Your task to perform on an android device: Check the weather Image 0: 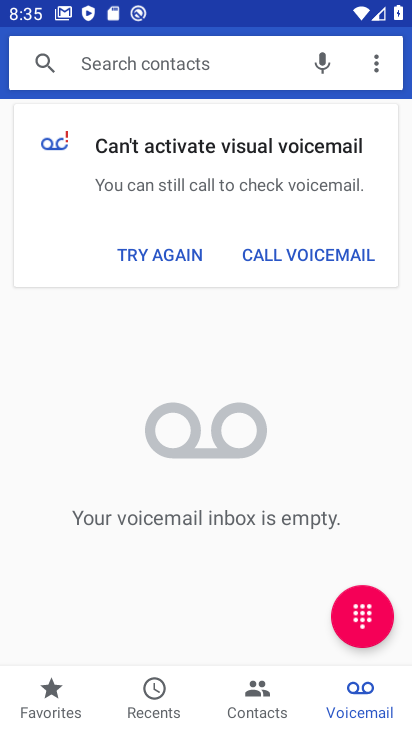
Step 0: drag from (159, 8) to (185, 575)
Your task to perform on an android device: Check the weather Image 1: 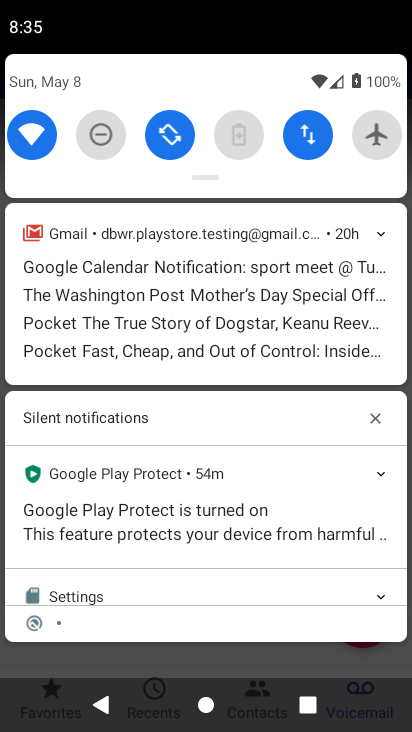
Step 1: press home button
Your task to perform on an android device: Check the weather Image 2: 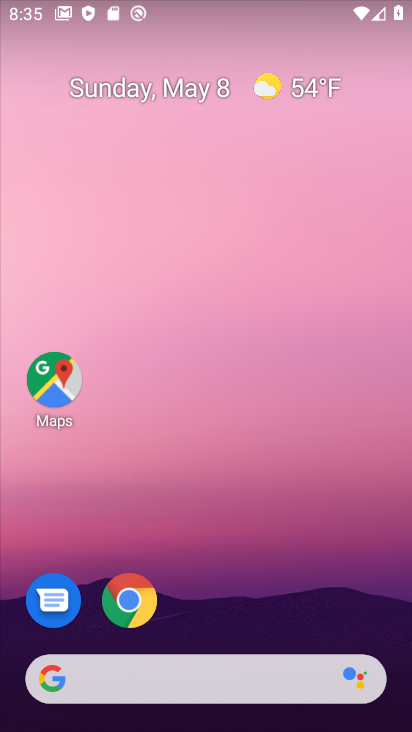
Step 2: click (315, 100)
Your task to perform on an android device: Check the weather Image 3: 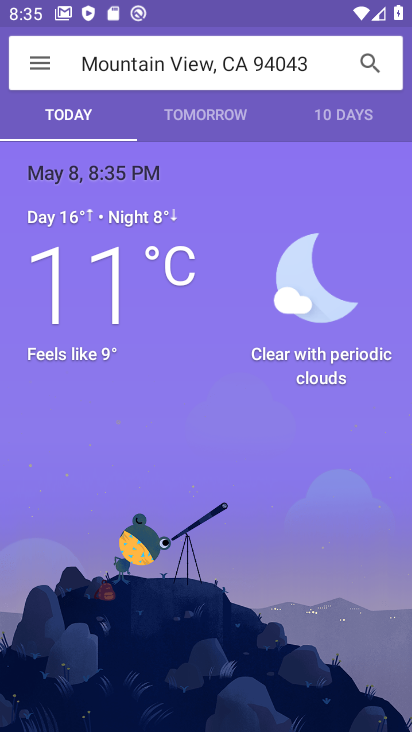
Step 3: task complete